Your task to perform on an android device: Add "jbl charge 4" to the cart on walmart Image 0: 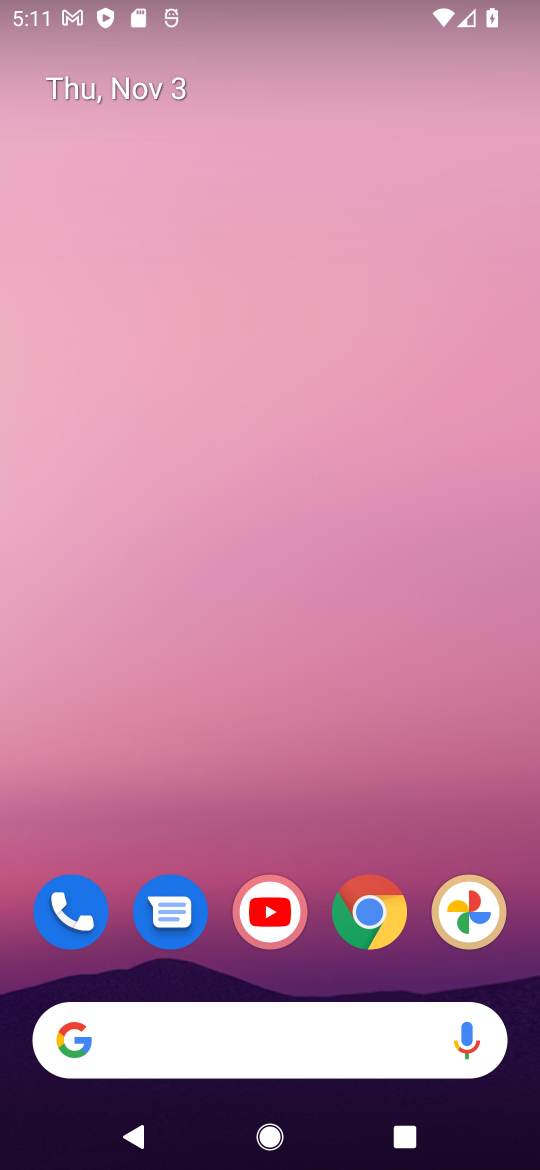
Step 0: click (361, 898)
Your task to perform on an android device: Add "jbl charge 4" to the cart on walmart Image 1: 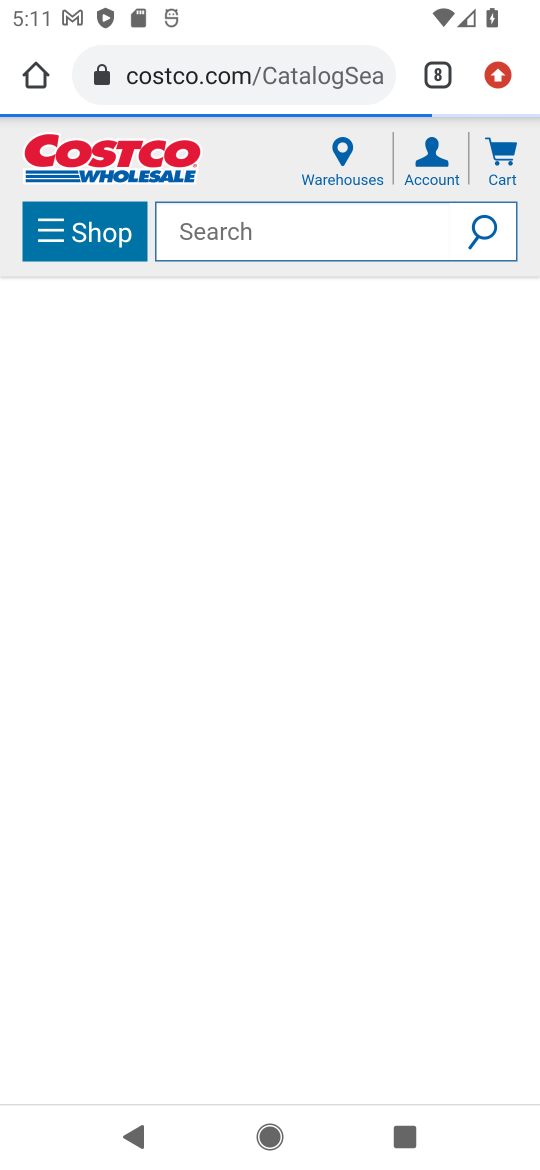
Step 1: click (433, 75)
Your task to perform on an android device: Add "jbl charge 4" to the cart on walmart Image 2: 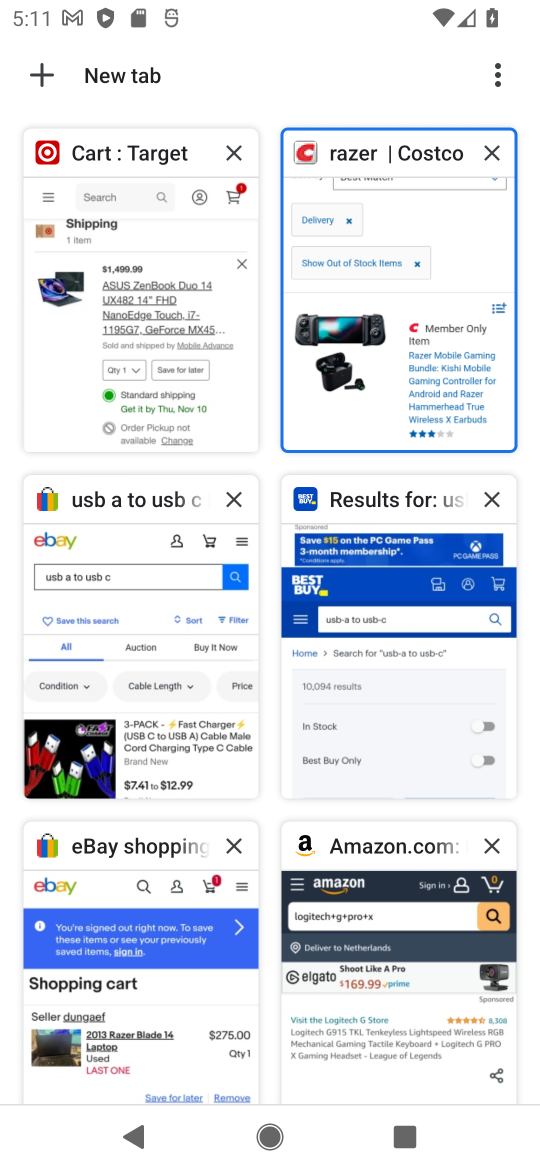
Step 2: click (35, 82)
Your task to perform on an android device: Add "jbl charge 4" to the cart on walmart Image 3: 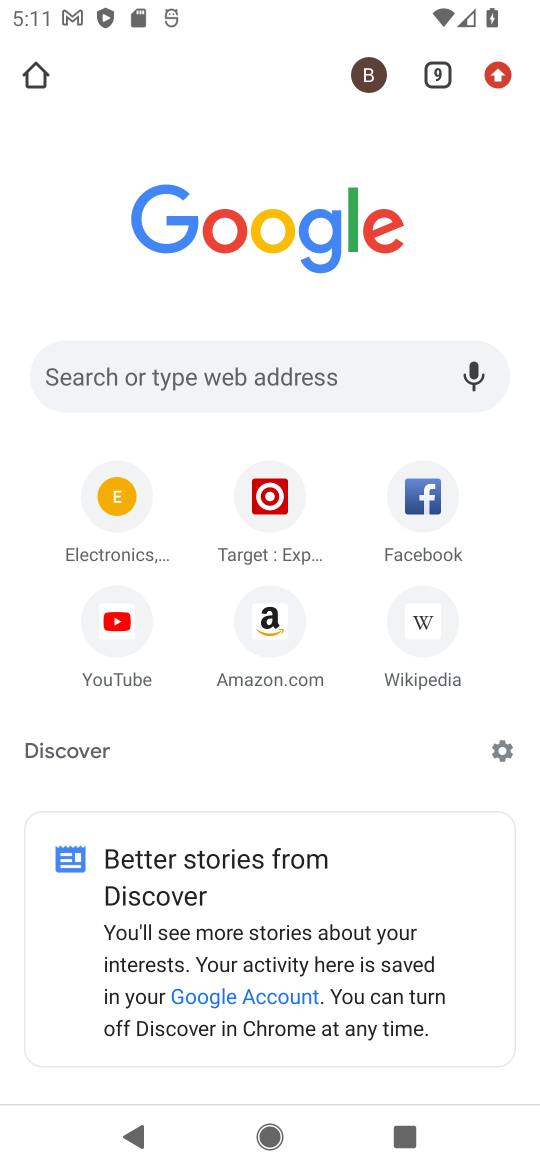
Step 3: click (176, 359)
Your task to perform on an android device: Add "jbl charge 4" to the cart on walmart Image 4: 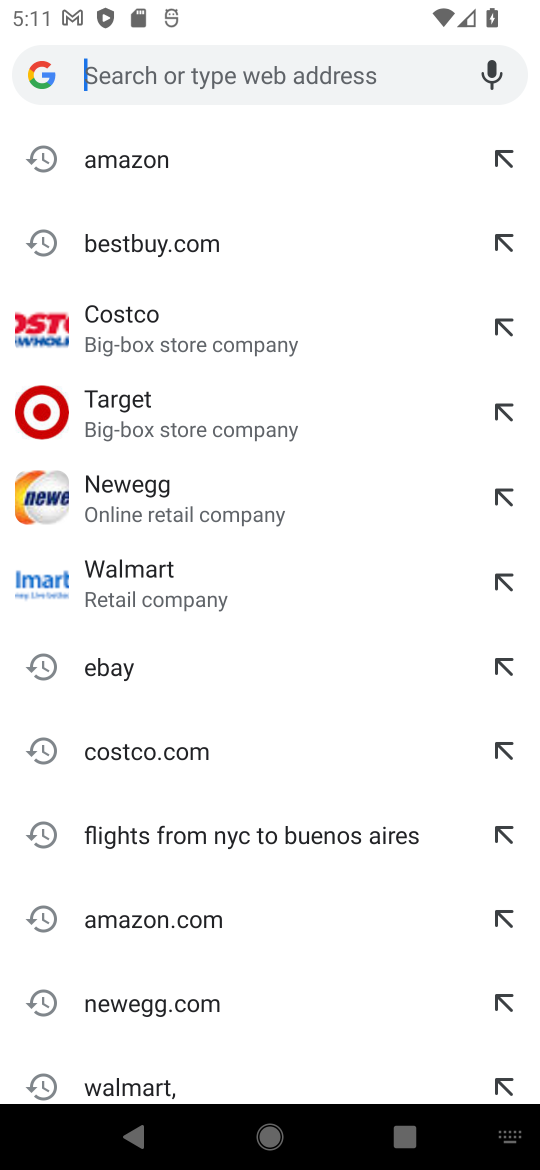
Step 4: type "walmart"
Your task to perform on an android device: Add "jbl charge 4" to the cart on walmart Image 5: 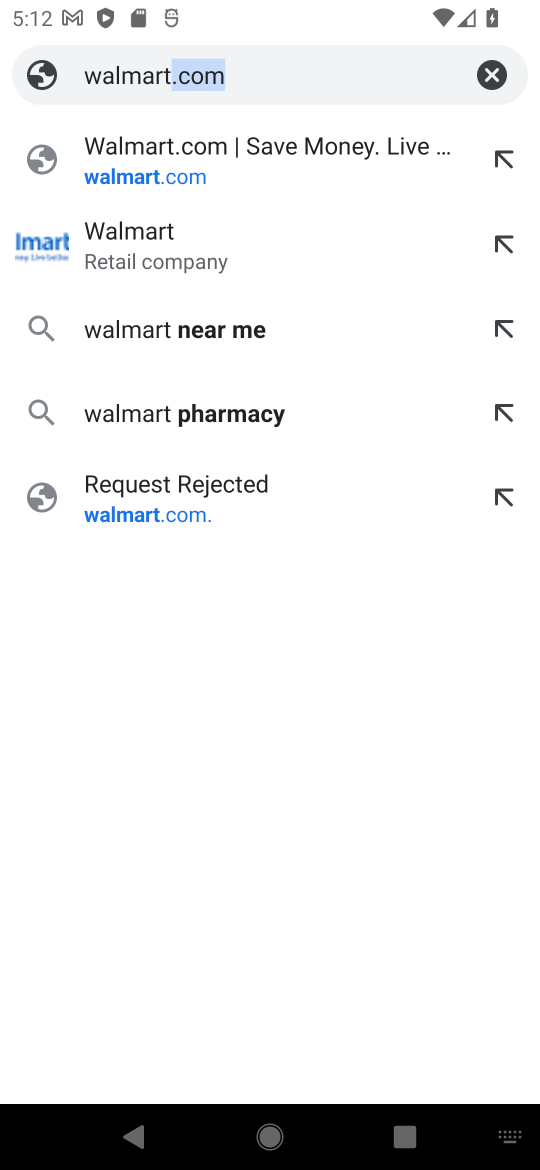
Step 5: click (211, 151)
Your task to perform on an android device: Add "jbl charge 4" to the cart on walmart Image 6: 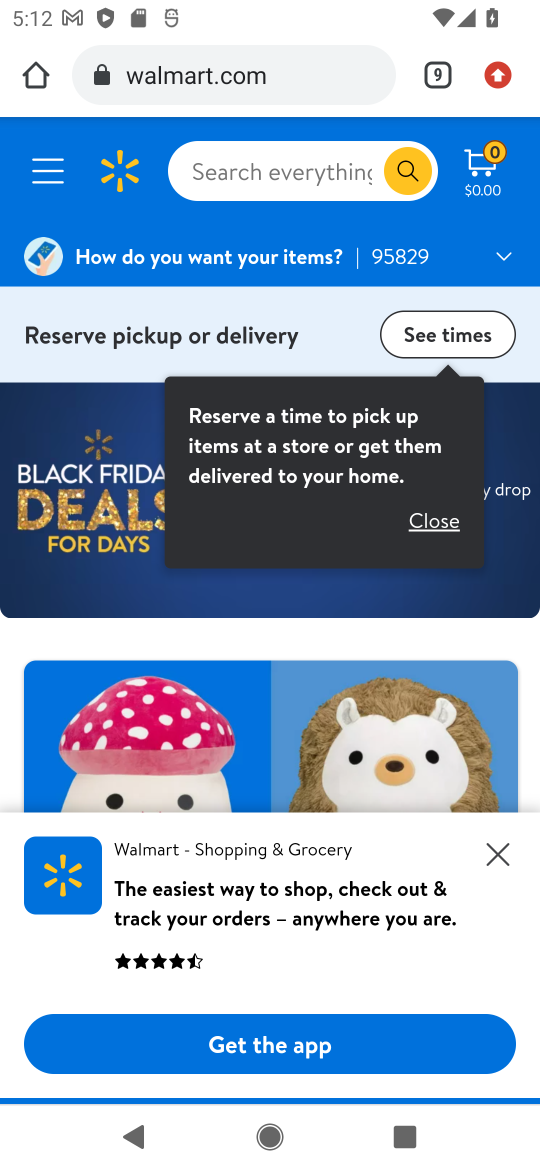
Step 6: click (262, 179)
Your task to perform on an android device: Add "jbl charge 4" to the cart on walmart Image 7: 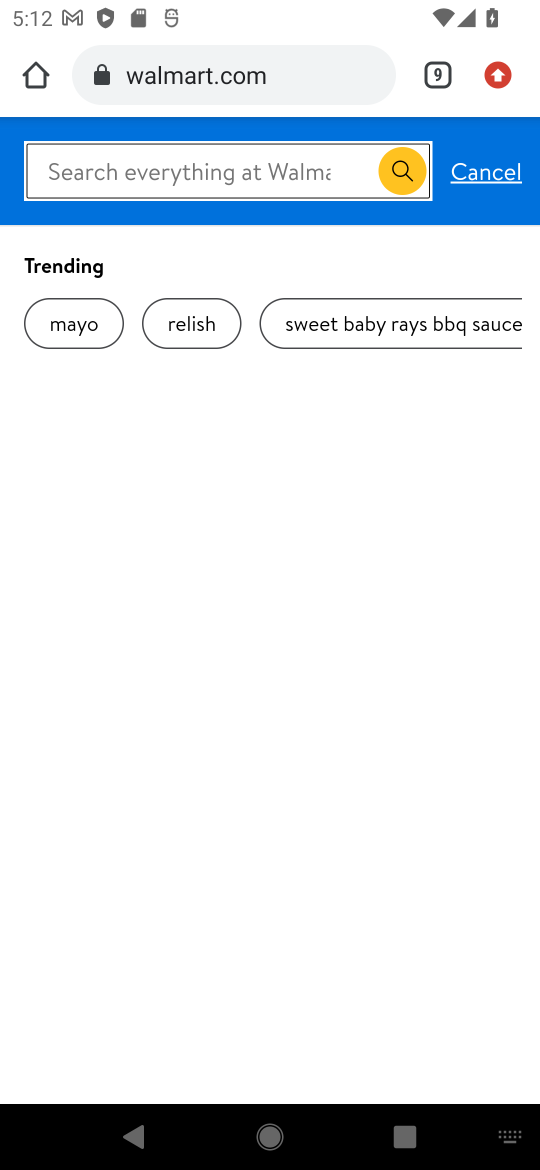
Step 7: click (171, 160)
Your task to perform on an android device: Add "jbl charge 4" to the cart on walmart Image 8: 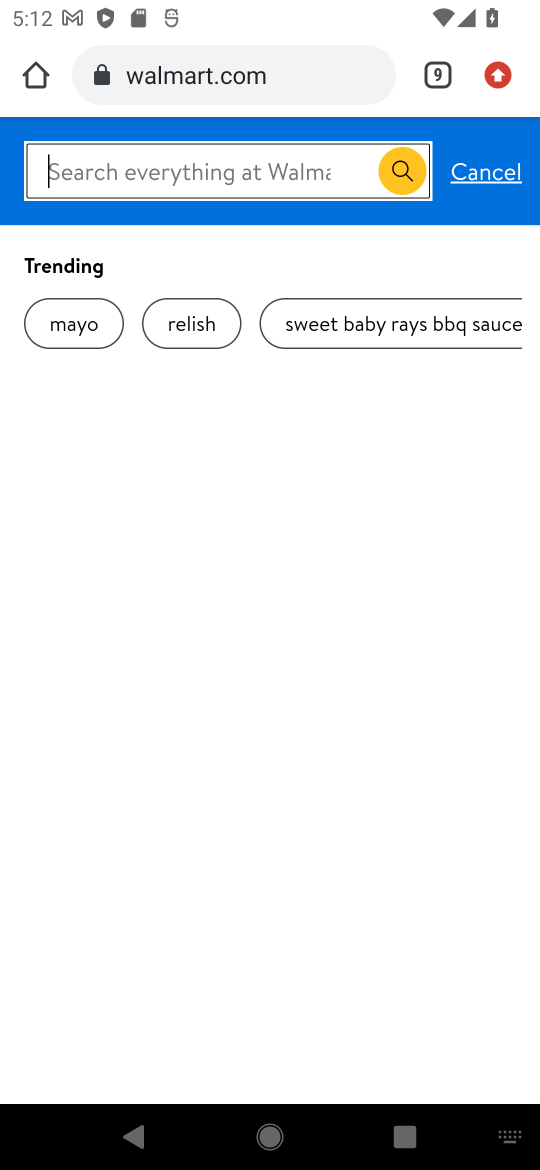
Step 8: click (424, 868)
Your task to perform on an android device: Add "jbl charge 4" to the cart on walmart Image 9: 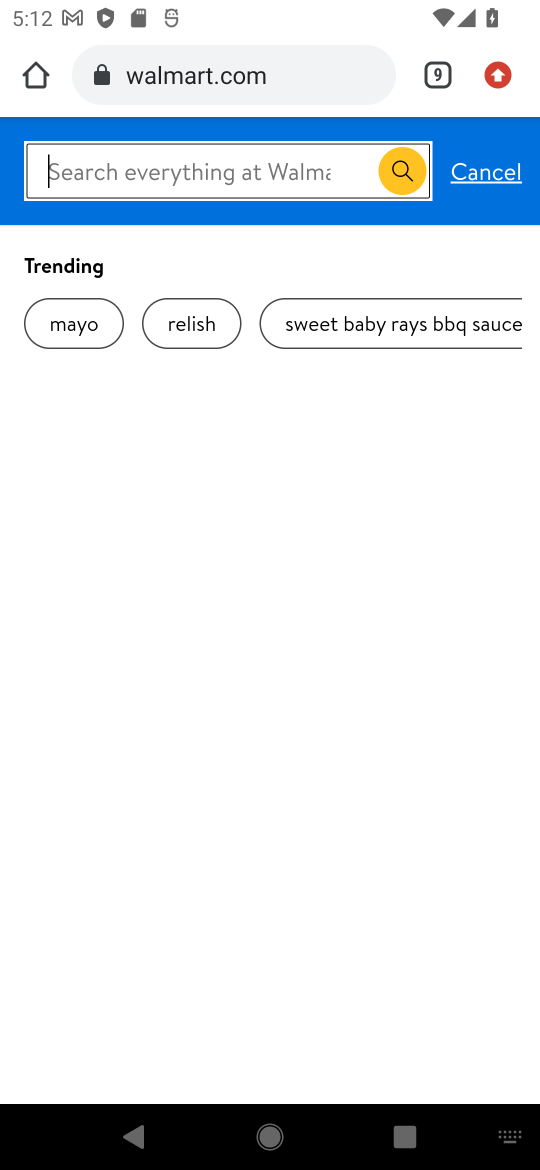
Step 9: type "jbl charge 4"
Your task to perform on an android device: Add "jbl charge 4" to the cart on walmart Image 10: 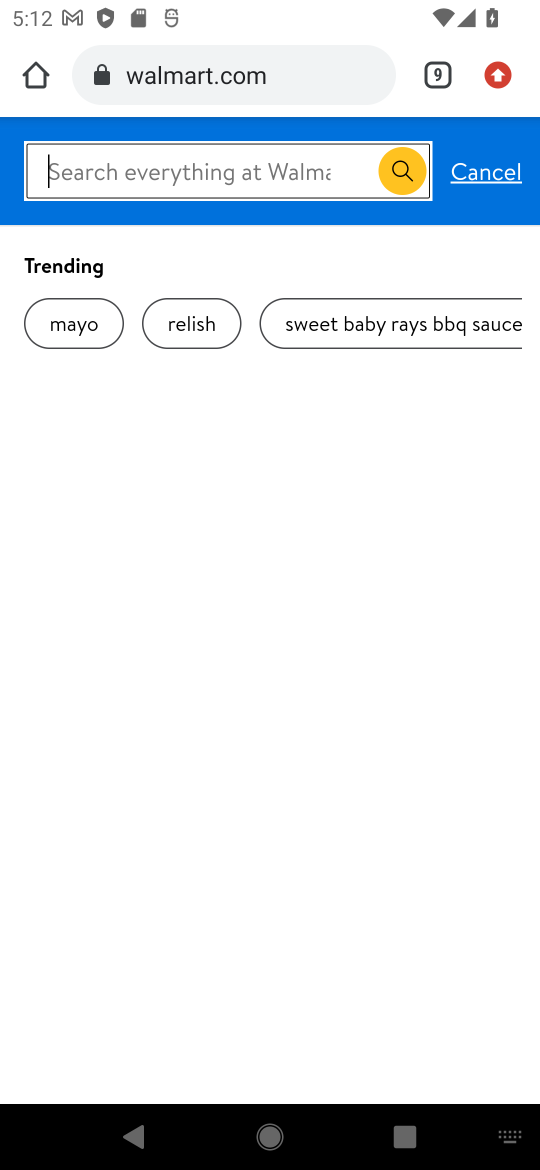
Step 10: click (422, 868)
Your task to perform on an android device: Add "jbl charge 4" to the cart on walmart Image 11: 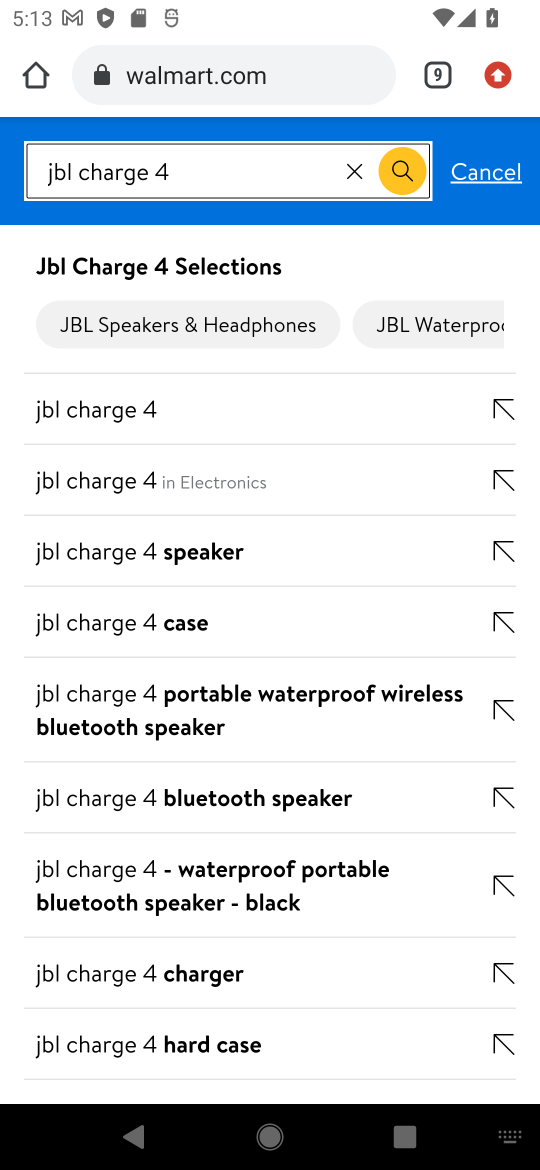
Step 11: click (200, 395)
Your task to perform on an android device: Add "jbl charge 4" to the cart on walmart Image 12: 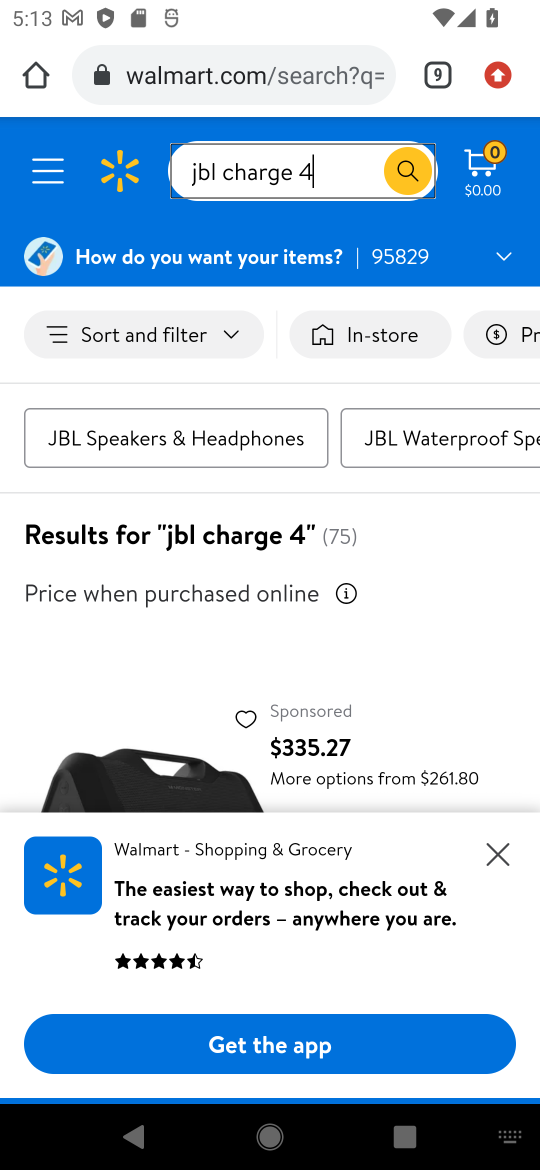
Step 12: click (504, 839)
Your task to perform on an android device: Add "jbl charge 4" to the cart on walmart Image 13: 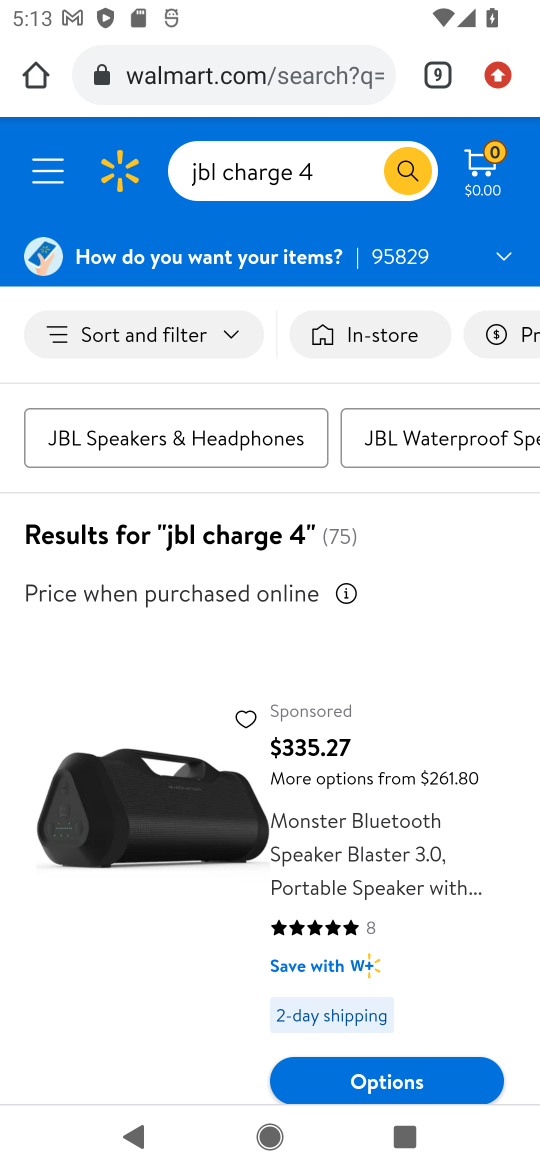
Step 13: task complete